Your task to perform on an android device: turn pop-ups on in chrome Image 0: 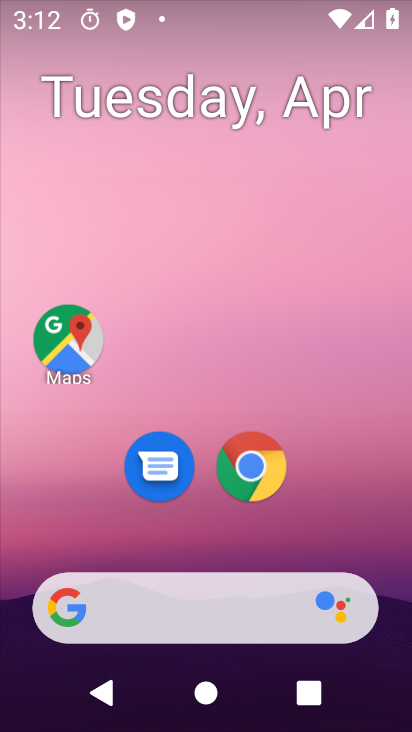
Step 0: drag from (193, 534) to (269, 4)
Your task to perform on an android device: turn pop-ups on in chrome Image 1: 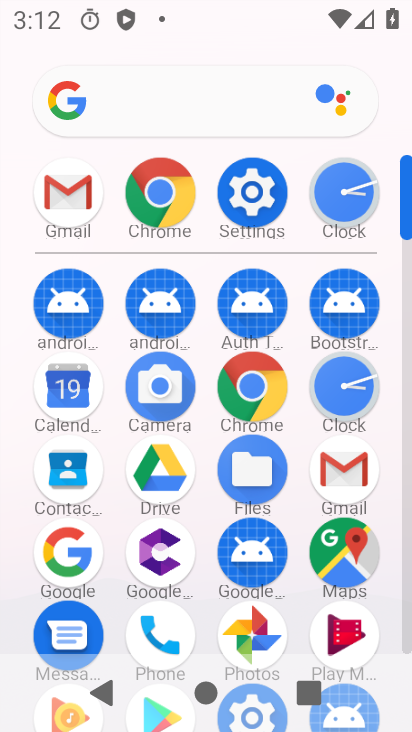
Step 1: click (254, 373)
Your task to perform on an android device: turn pop-ups on in chrome Image 2: 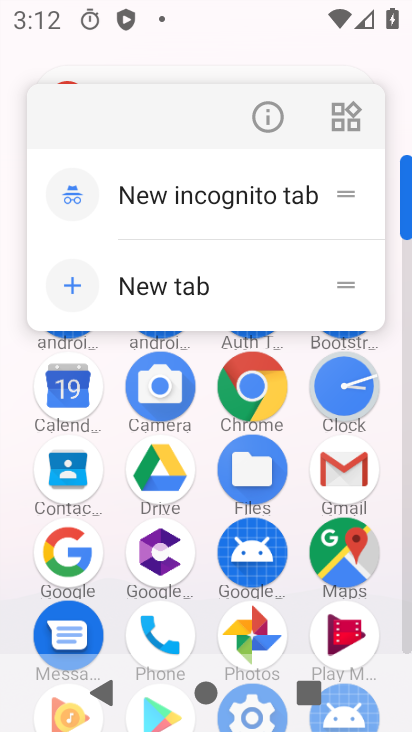
Step 2: click (254, 373)
Your task to perform on an android device: turn pop-ups on in chrome Image 3: 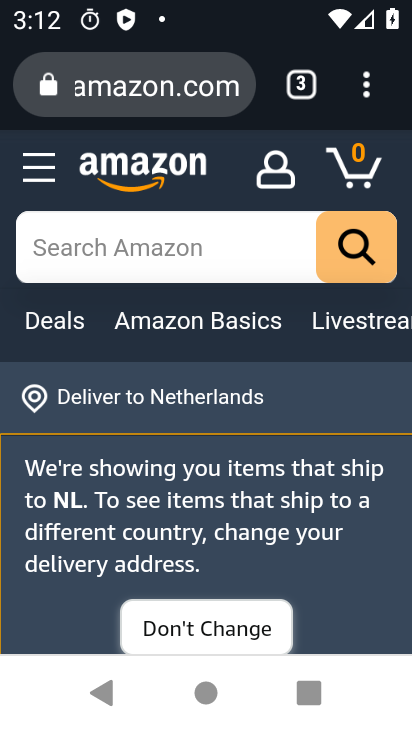
Step 3: click (363, 83)
Your task to perform on an android device: turn pop-ups on in chrome Image 4: 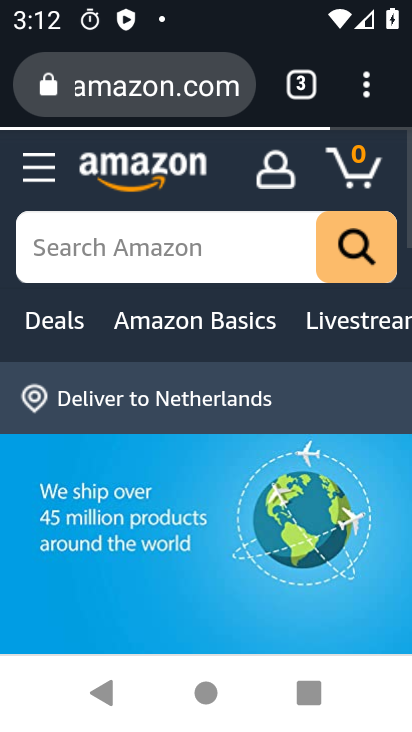
Step 4: click (365, 93)
Your task to perform on an android device: turn pop-ups on in chrome Image 5: 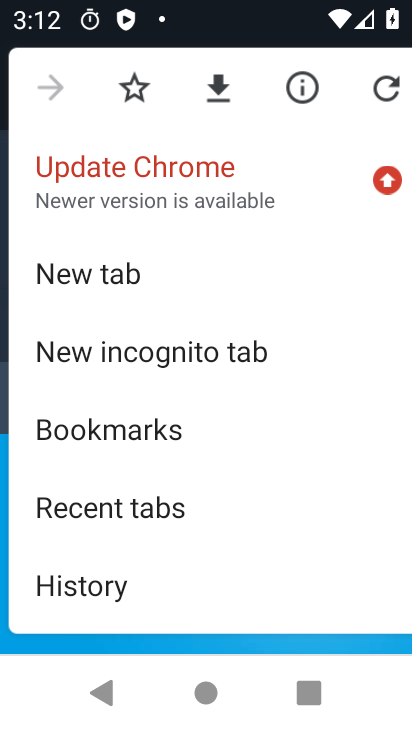
Step 5: drag from (203, 486) to (146, 109)
Your task to perform on an android device: turn pop-ups on in chrome Image 6: 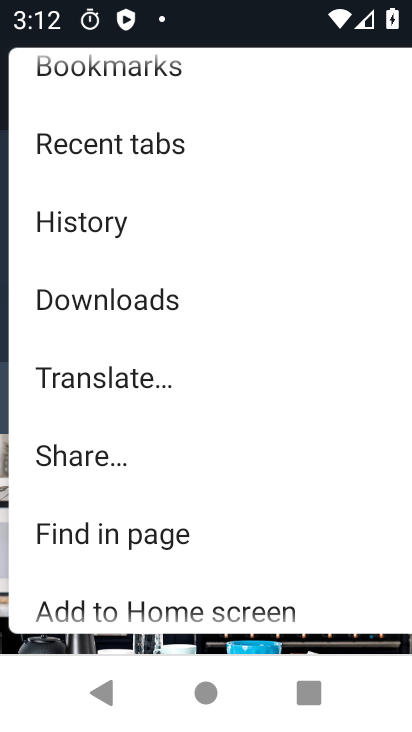
Step 6: drag from (120, 535) to (81, 122)
Your task to perform on an android device: turn pop-ups on in chrome Image 7: 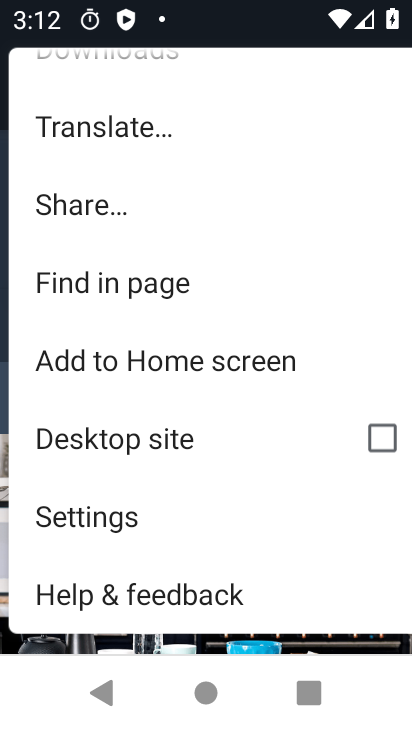
Step 7: click (109, 494)
Your task to perform on an android device: turn pop-ups on in chrome Image 8: 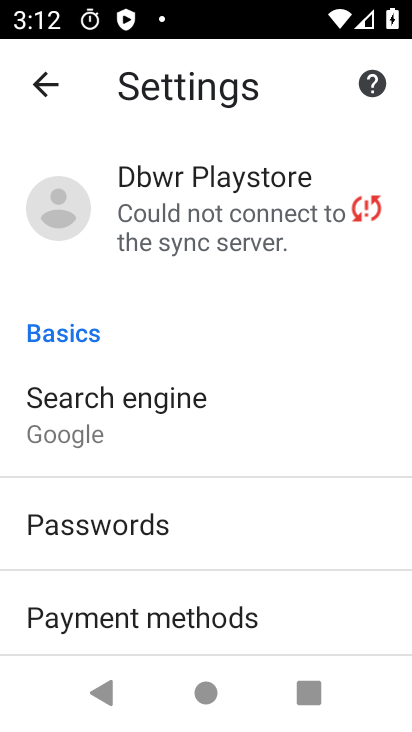
Step 8: drag from (87, 515) to (43, 132)
Your task to perform on an android device: turn pop-ups on in chrome Image 9: 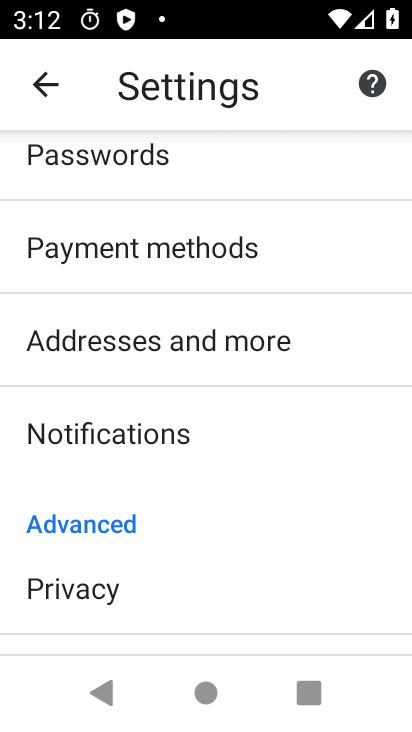
Step 9: drag from (156, 585) to (97, 210)
Your task to perform on an android device: turn pop-ups on in chrome Image 10: 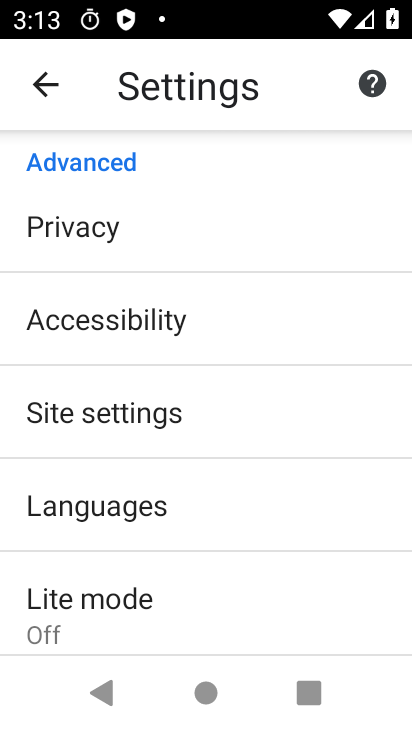
Step 10: click (89, 432)
Your task to perform on an android device: turn pop-ups on in chrome Image 11: 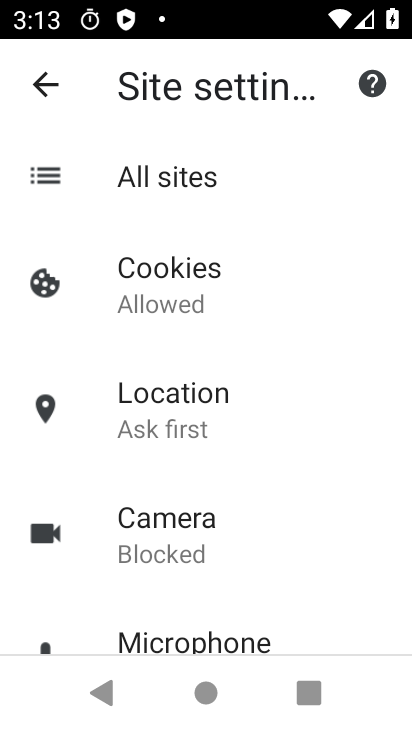
Step 11: drag from (214, 515) to (189, 167)
Your task to perform on an android device: turn pop-ups on in chrome Image 12: 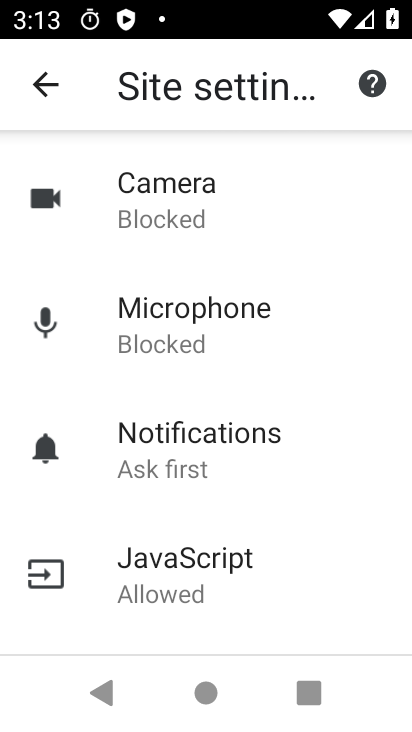
Step 12: drag from (218, 492) to (191, 160)
Your task to perform on an android device: turn pop-ups on in chrome Image 13: 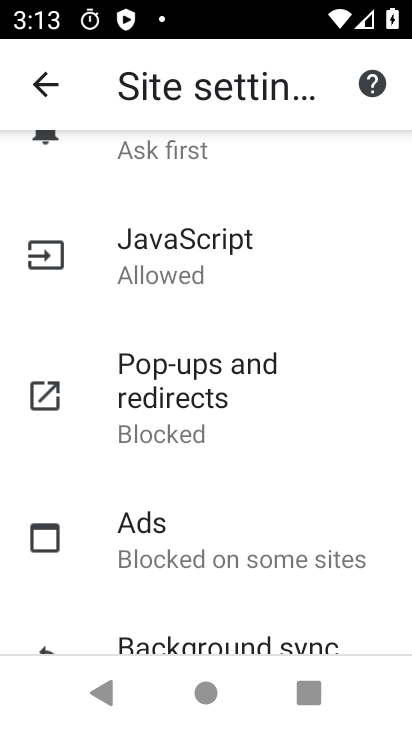
Step 13: click (222, 413)
Your task to perform on an android device: turn pop-ups on in chrome Image 14: 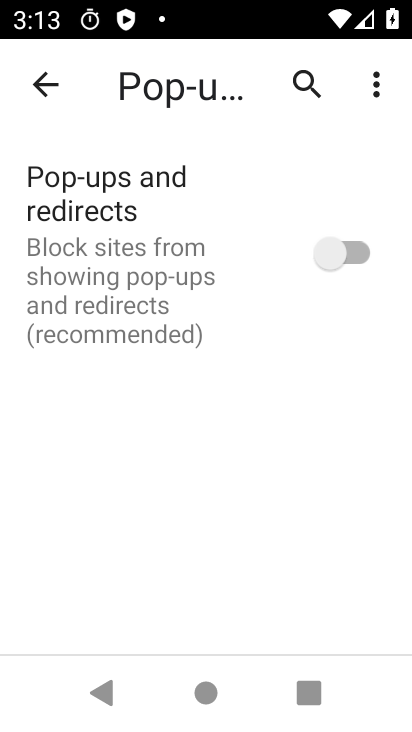
Step 14: task complete